Your task to perform on an android device: delete a single message in the gmail app Image 0: 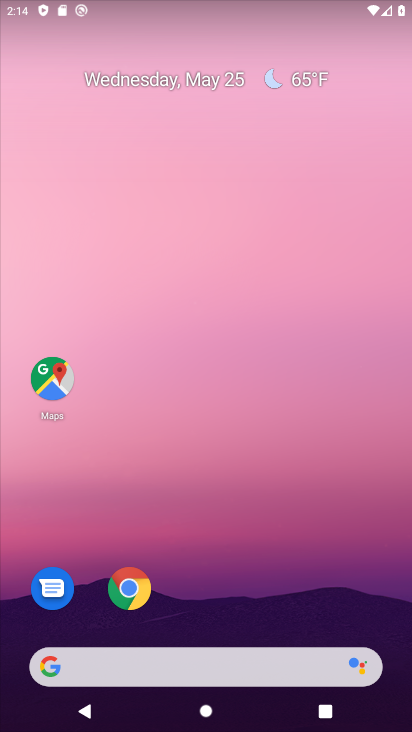
Step 0: drag from (209, 544) to (297, 199)
Your task to perform on an android device: delete a single message in the gmail app Image 1: 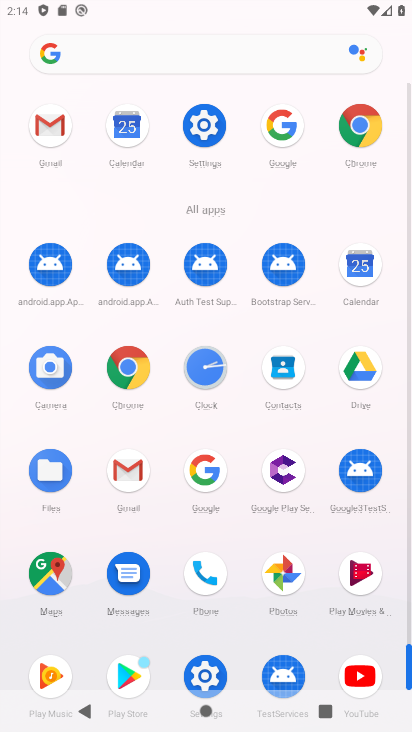
Step 1: click (125, 473)
Your task to perform on an android device: delete a single message in the gmail app Image 2: 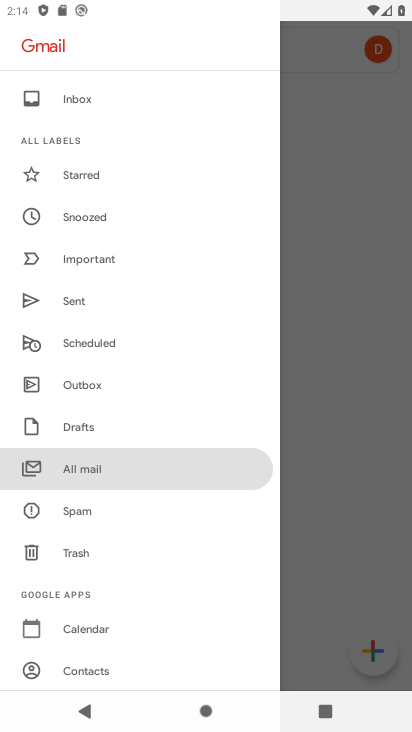
Step 2: click (105, 467)
Your task to perform on an android device: delete a single message in the gmail app Image 3: 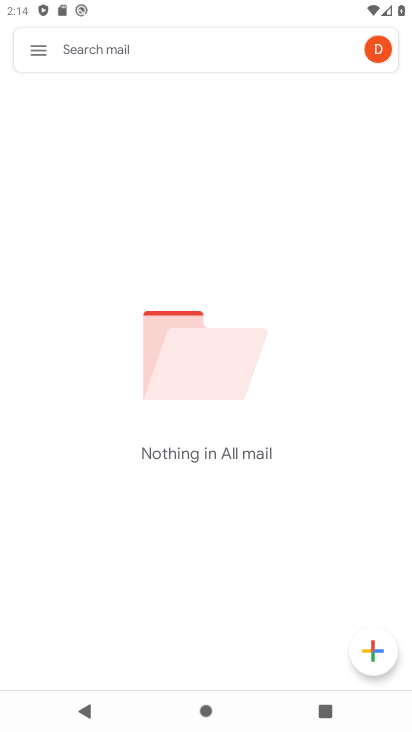
Step 3: task complete